Your task to perform on an android device: open chrome and create a bookmark for the current page Image 0: 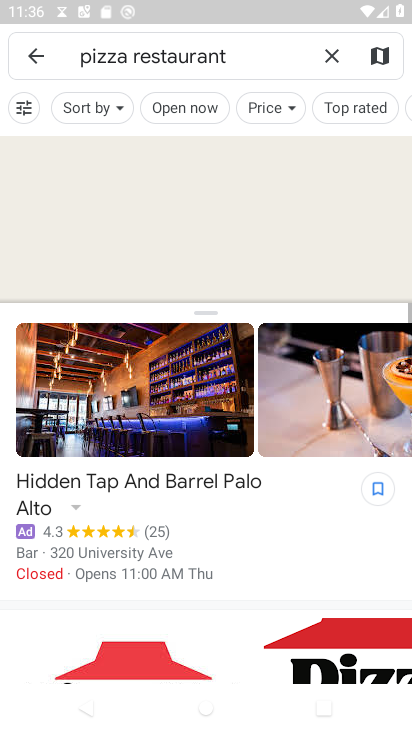
Step 0: press home button
Your task to perform on an android device: open chrome and create a bookmark for the current page Image 1: 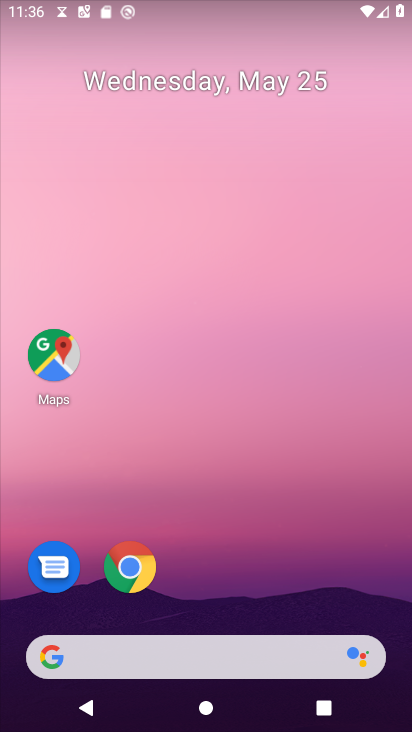
Step 1: click (153, 568)
Your task to perform on an android device: open chrome and create a bookmark for the current page Image 2: 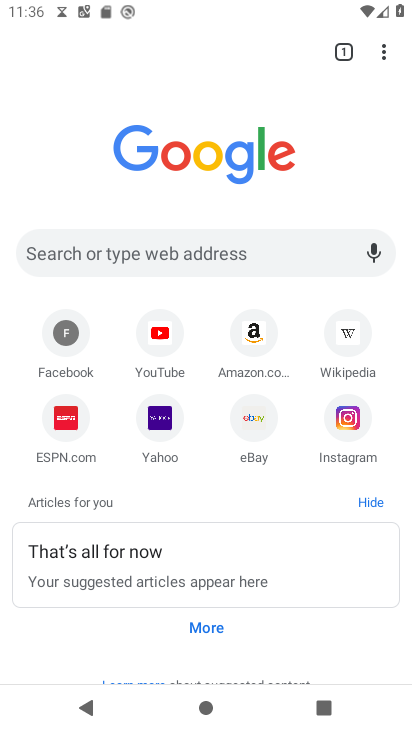
Step 2: click (347, 40)
Your task to perform on an android device: open chrome and create a bookmark for the current page Image 3: 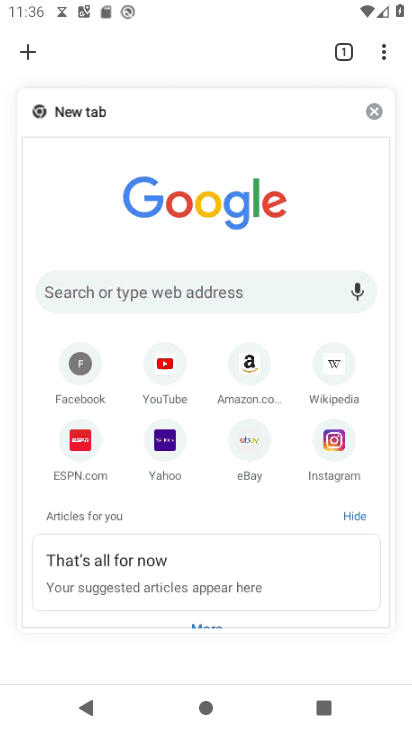
Step 3: click (202, 236)
Your task to perform on an android device: open chrome and create a bookmark for the current page Image 4: 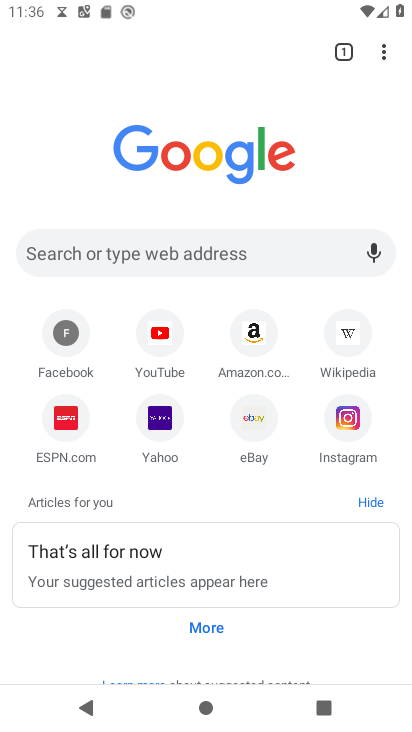
Step 4: click (403, 64)
Your task to perform on an android device: open chrome and create a bookmark for the current page Image 5: 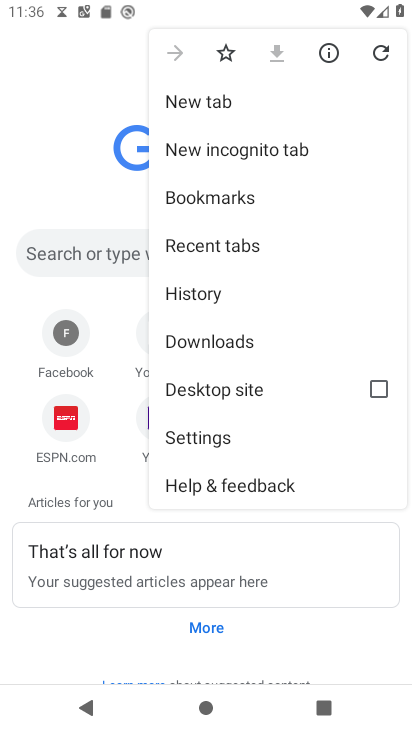
Step 5: click (250, 179)
Your task to perform on an android device: open chrome and create a bookmark for the current page Image 6: 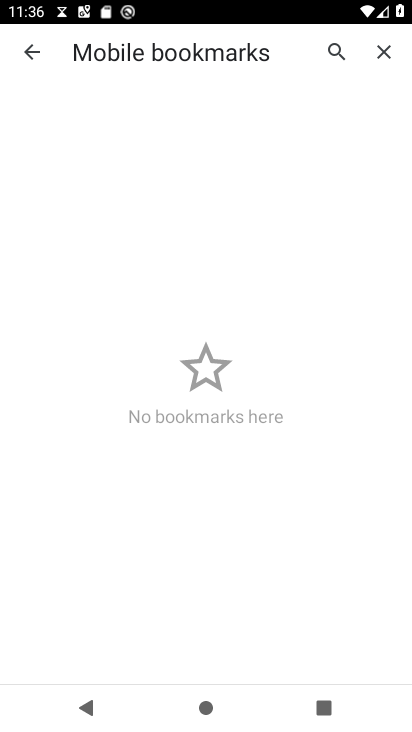
Step 6: click (331, 38)
Your task to perform on an android device: open chrome and create a bookmark for the current page Image 7: 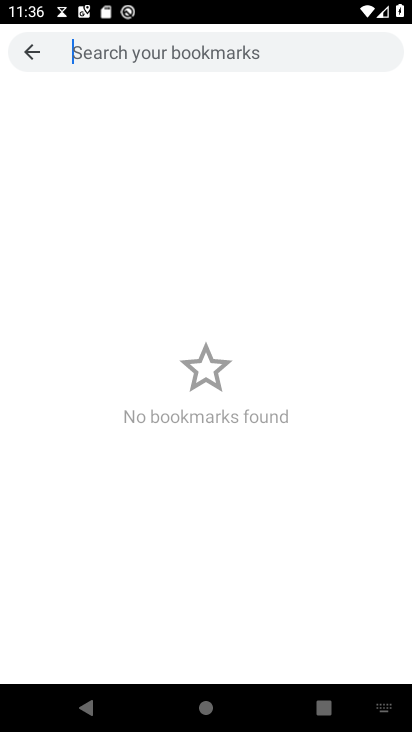
Step 7: task complete